Your task to perform on an android device: Open accessibility settings Image 0: 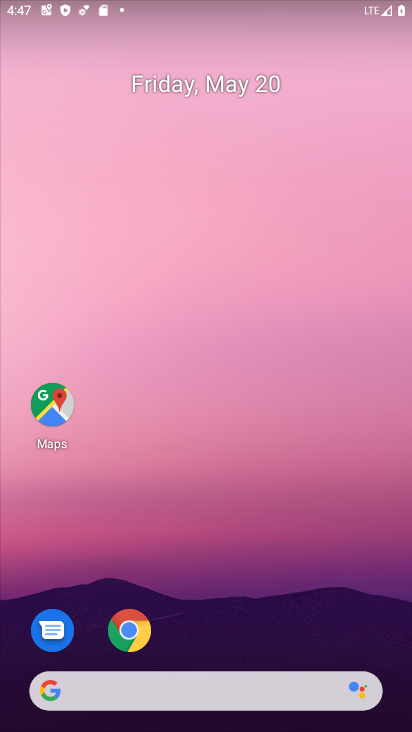
Step 0: drag from (251, 547) to (226, 119)
Your task to perform on an android device: Open accessibility settings Image 1: 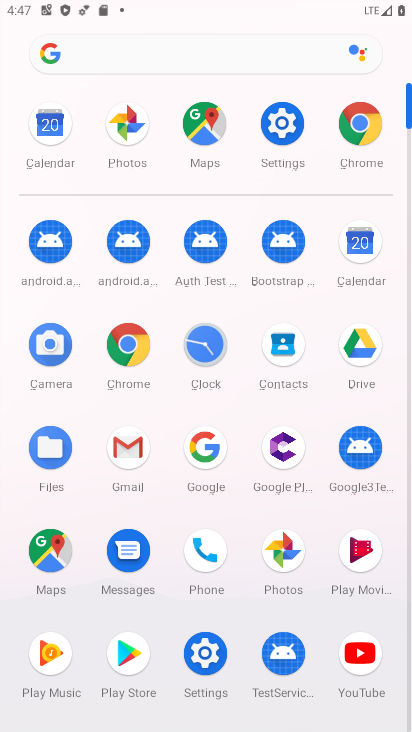
Step 1: click (284, 118)
Your task to perform on an android device: Open accessibility settings Image 2: 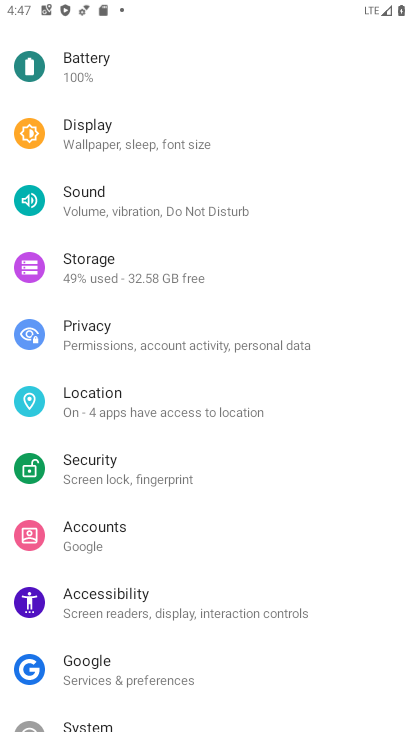
Step 2: click (176, 591)
Your task to perform on an android device: Open accessibility settings Image 3: 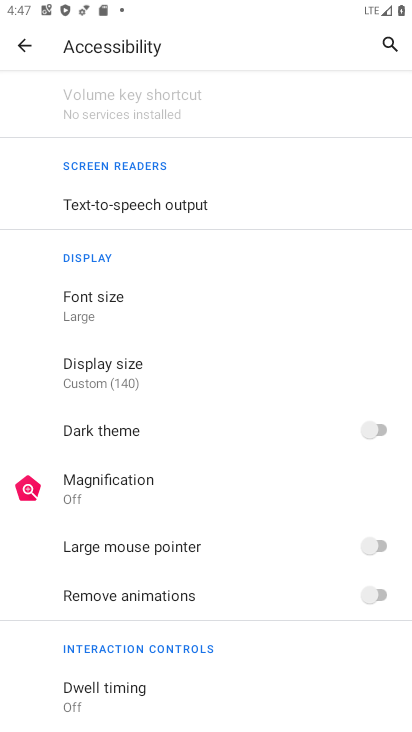
Step 3: task complete